Your task to perform on an android device: add a contact Image 0: 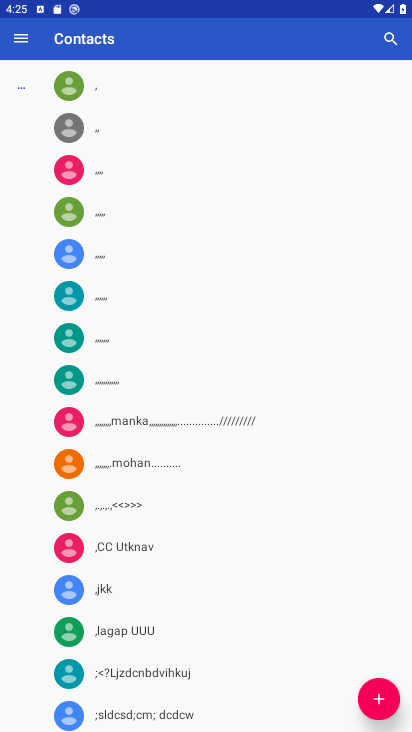
Step 0: press home button
Your task to perform on an android device: add a contact Image 1: 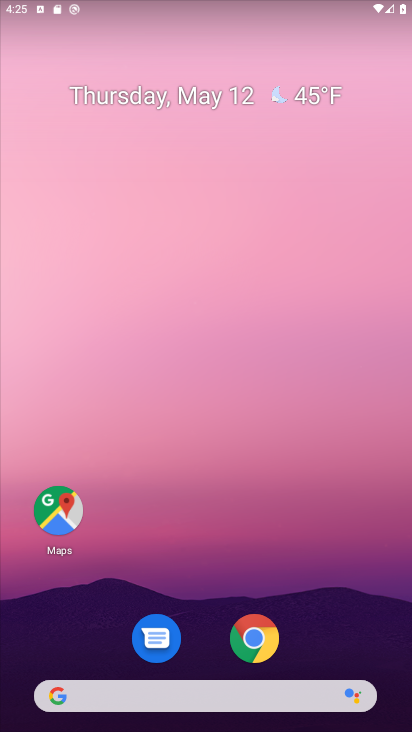
Step 1: drag from (309, 615) to (206, 100)
Your task to perform on an android device: add a contact Image 2: 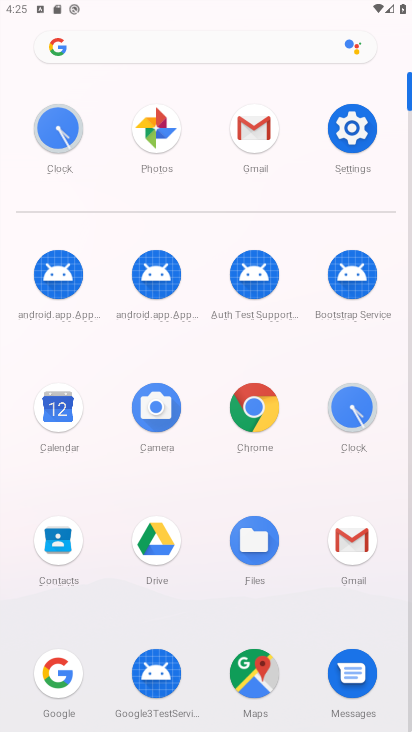
Step 2: click (54, 537)
Your task to perform on an android device: add a contact Image 3: 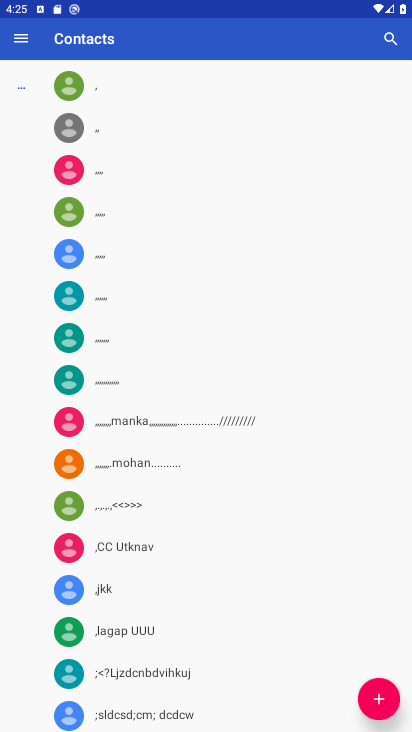
Step 3: click (373, 696)
Your task to perform on an android device: add a contact Image 4: 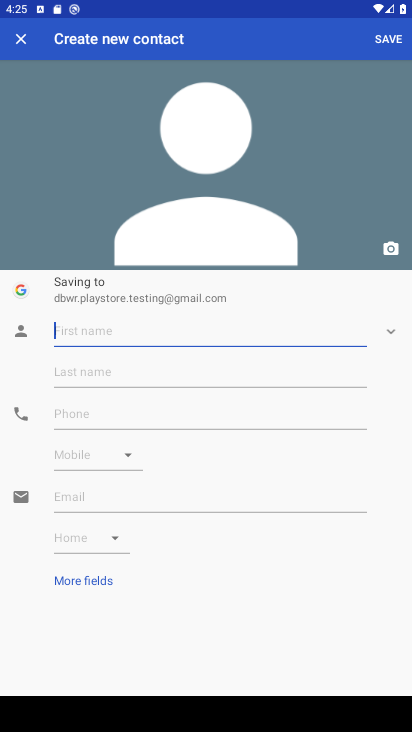
Step 4: type "fgdsfg"
Your task to perform on an android device: add a contact Image 5: 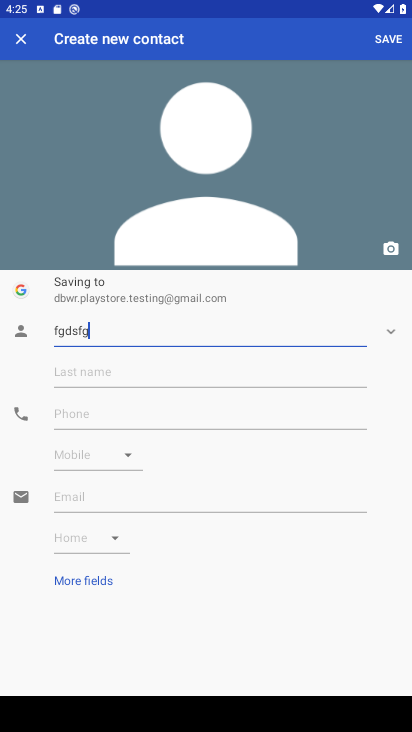
Step 5: type ""
Your task to perform on an android device: add a contact Image 6: 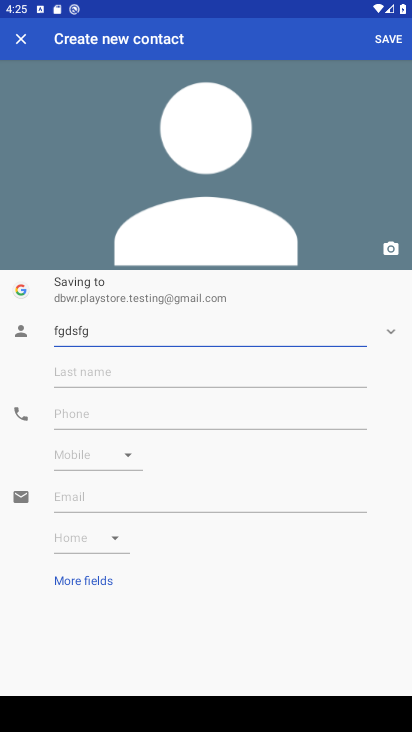
Step 6: click (152, 374)
Your task to perform on an android device: add a contact Image 7: 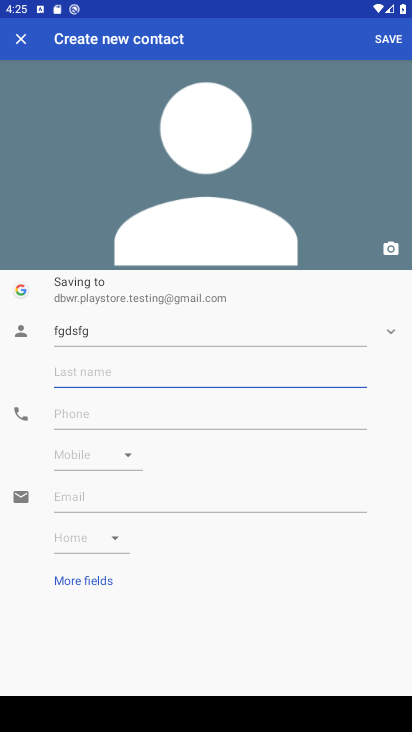
Step 7: type "fgdfg"
Your task to perform on an android device: add a contact Image 8: 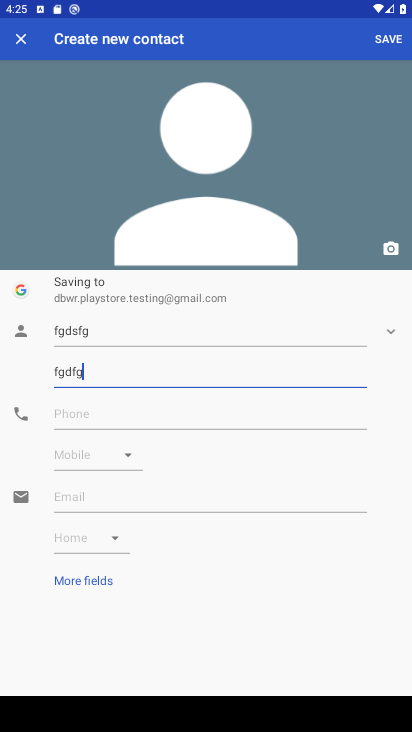
Step 8: type ""
Your task to perform on an android device: add a contact Image 9: 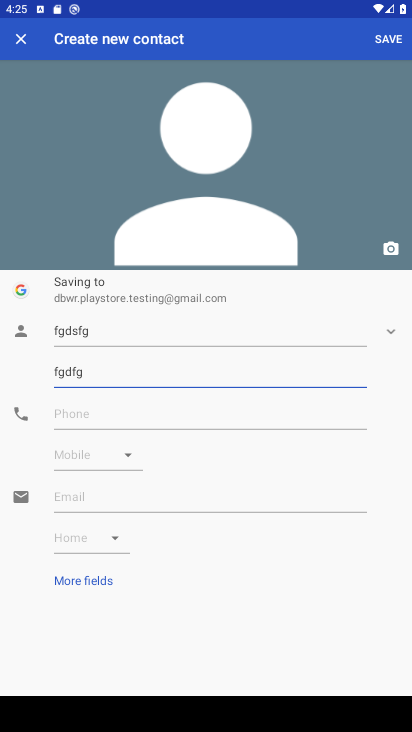
Step 9: click (165, 409)
Your task to perform on an android device: add a contact Image 10: 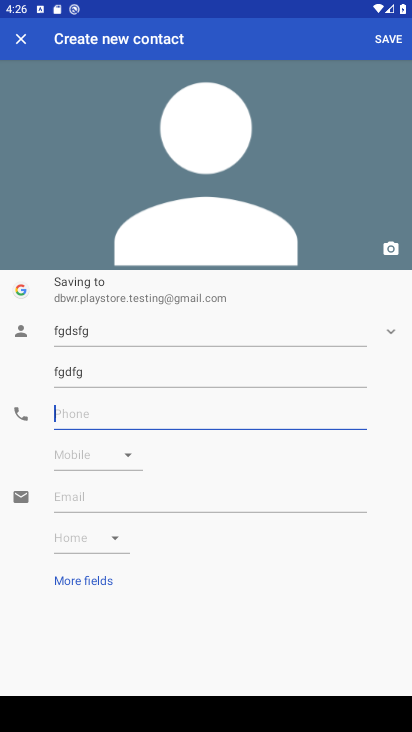
Step 10: type "453452345"
Your task to perform on an android device: add a contact Image 11: 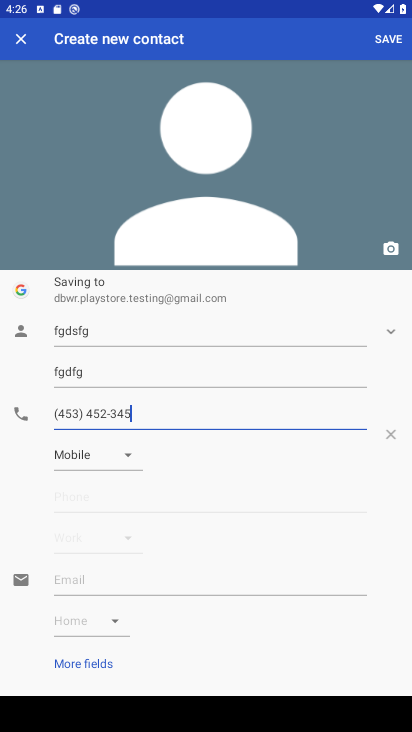
Step 11: type ""
Your task to perform on an android device: add a contact Image 12: 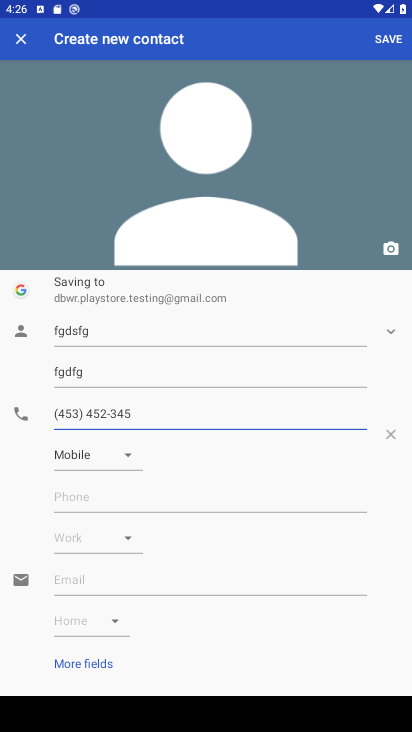
Step 12: click (388, 32)
Your task to perform on an android device: add a contact Image 13: 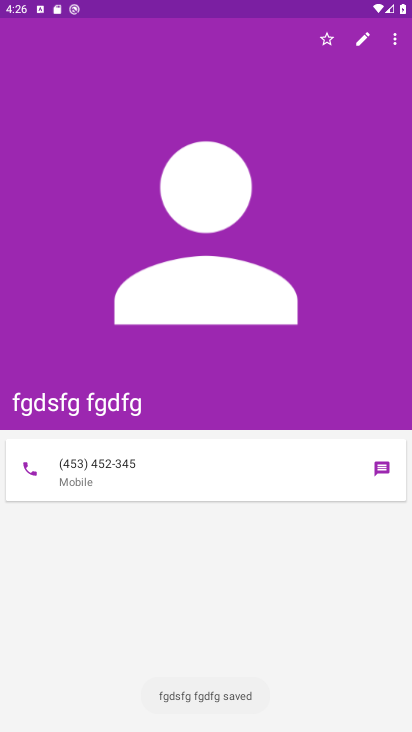
Step 13: task complete